Your task to perform on an android device: visit the assistant section in the google photos Image 0: 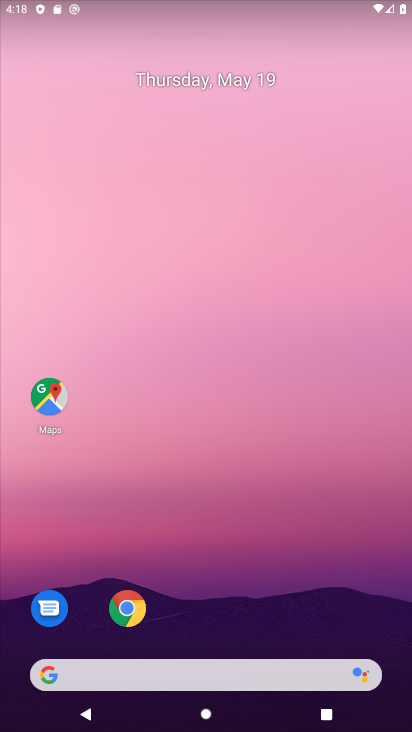
Step 0: drag from (227, 560) to (225, 104)
Your task to perform on an android device: visit the assistant section in the google photos Image 1: 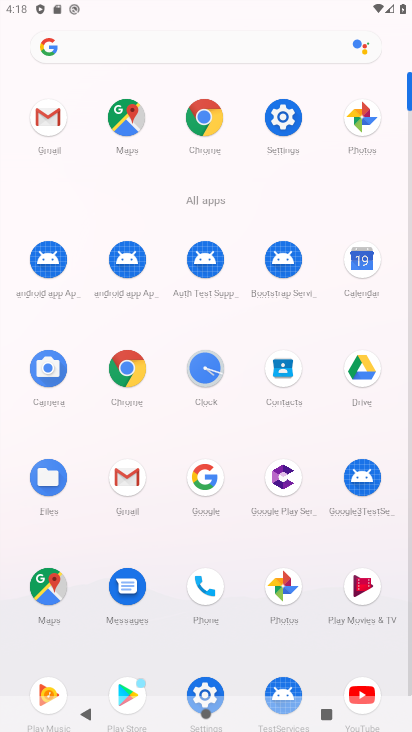
Step 1: click (277, 584)
Your task to perform on an android device: visit the assistant section in the google photos Image 2: 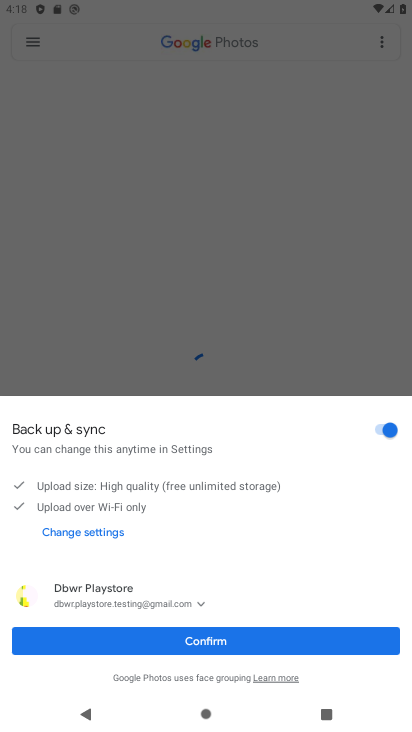
Step 2: click (205, 633)
Your task to perform on an android device: visit the assistant section in the google photos Image 3: 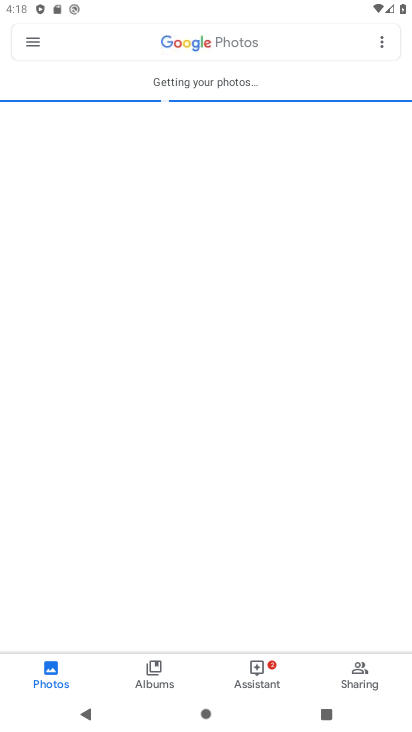
Step 3: click (253, 671)
Your task to perform on an android device: visit the assistant section in the google photos Image 4: 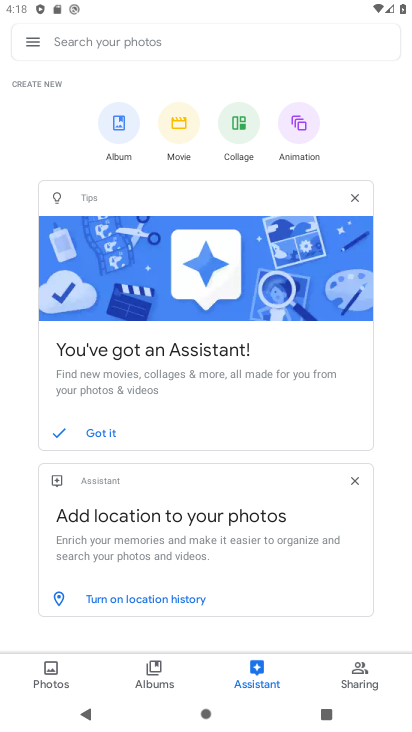
Step 4: task complete